Your task to perform on an android device: turn off sleep mode Image 0: 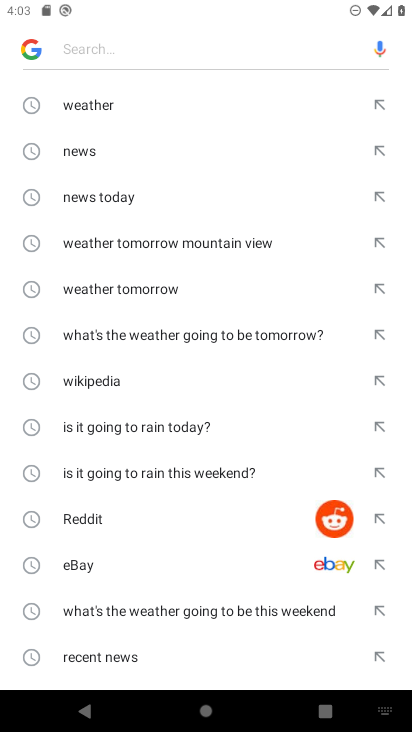
Step 0: press home button
Your task to perform on an android device: turn off sleep mode Image 1: 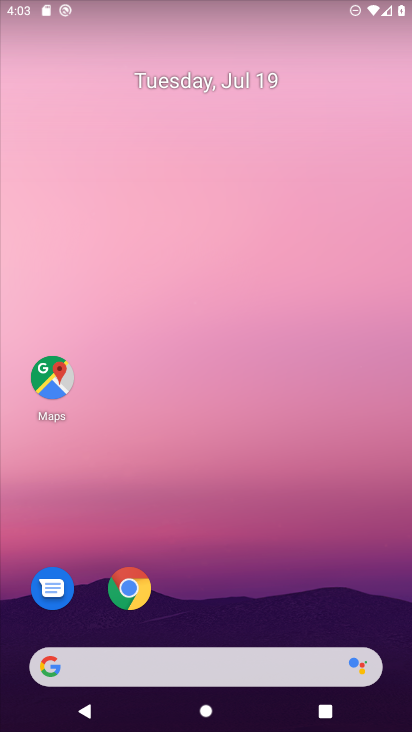
Step 1: drag from (198, 627) to (198, 199)
Your task to perform on an android device: turn off sleep mode Image 2: 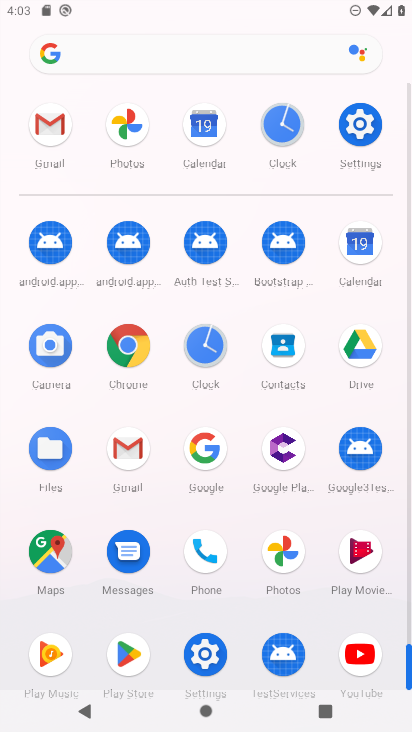
Step 2: click (357, 128)
Your task to perform on an android device: turn off sleep mode Image 3: 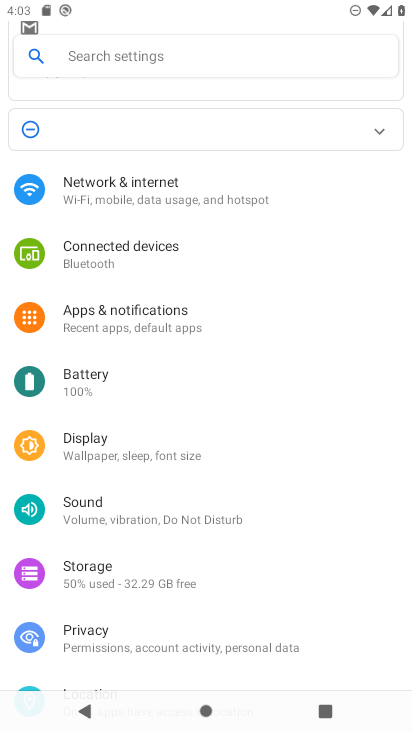
Step 3: task complete